Your task to perform on an android device: Open location settings Image 0: 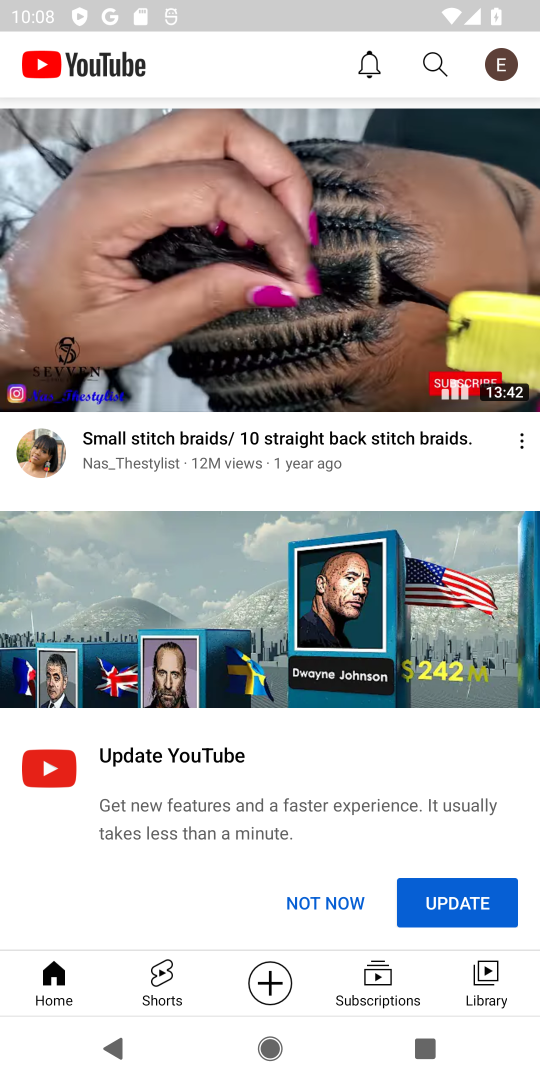
Step 0: press home button
Your task to perform on an android device: Open location settings Image 1: 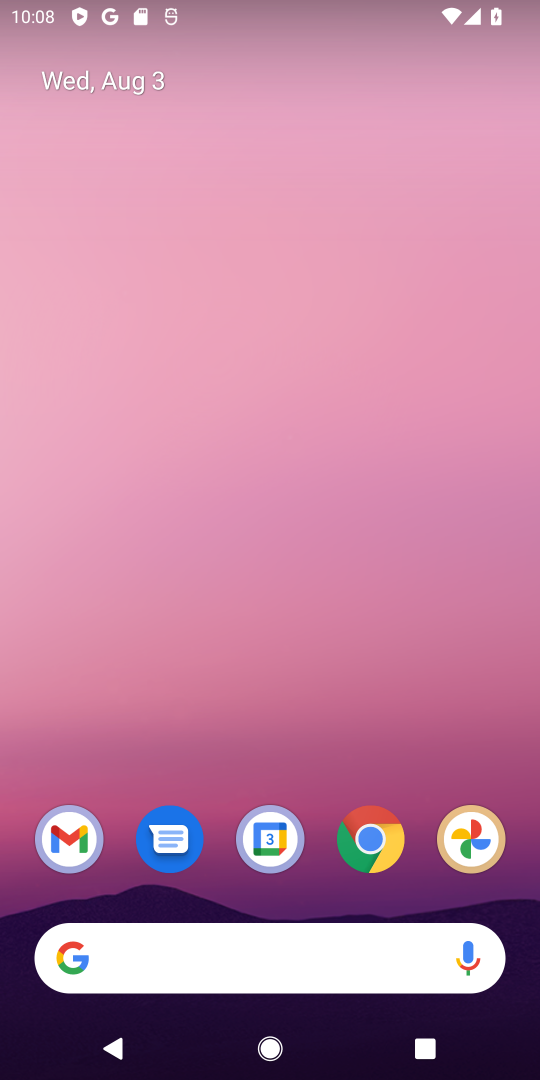
Step 1: drag from (200, 902) to (268, 32)
Your task to perform on an android device: Open location settings Image 2: 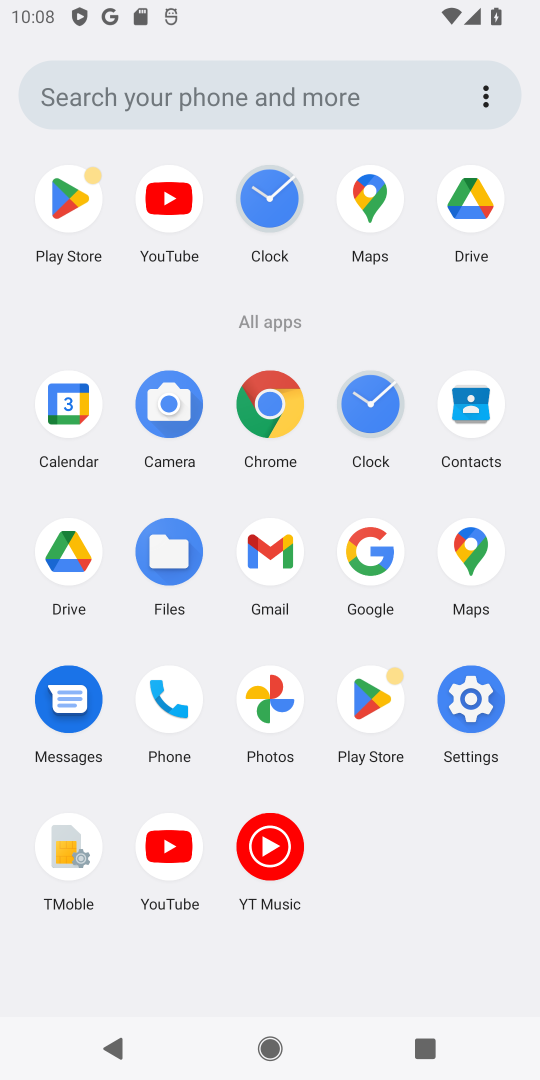
Step 2: click (489, 717)
Your task to perform on an android device: Open location settings Image 3: 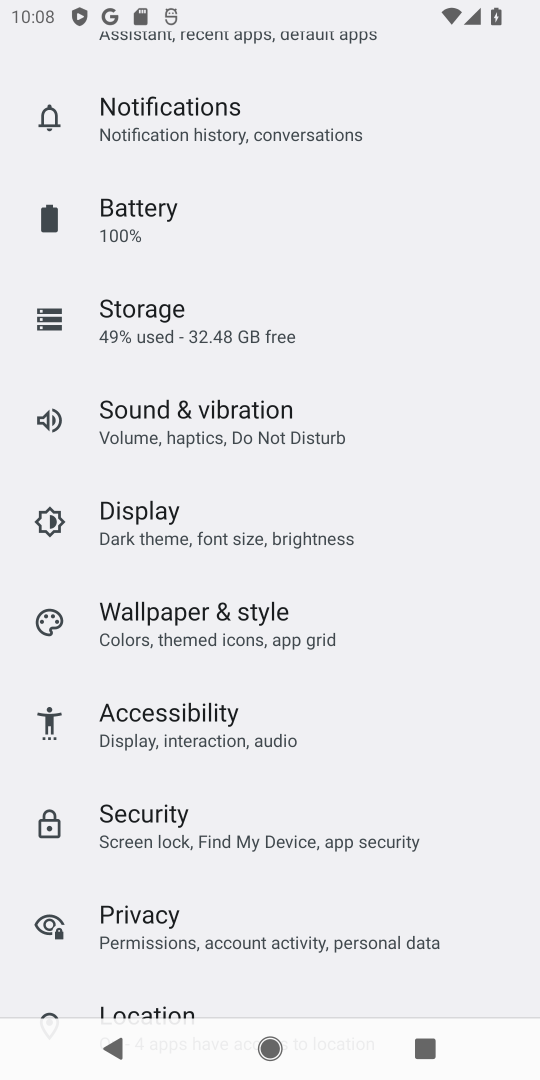
Step 3: drag from (188, 357) to (212, 270)
Your task to perform on an android device: Open location settings Image 4: 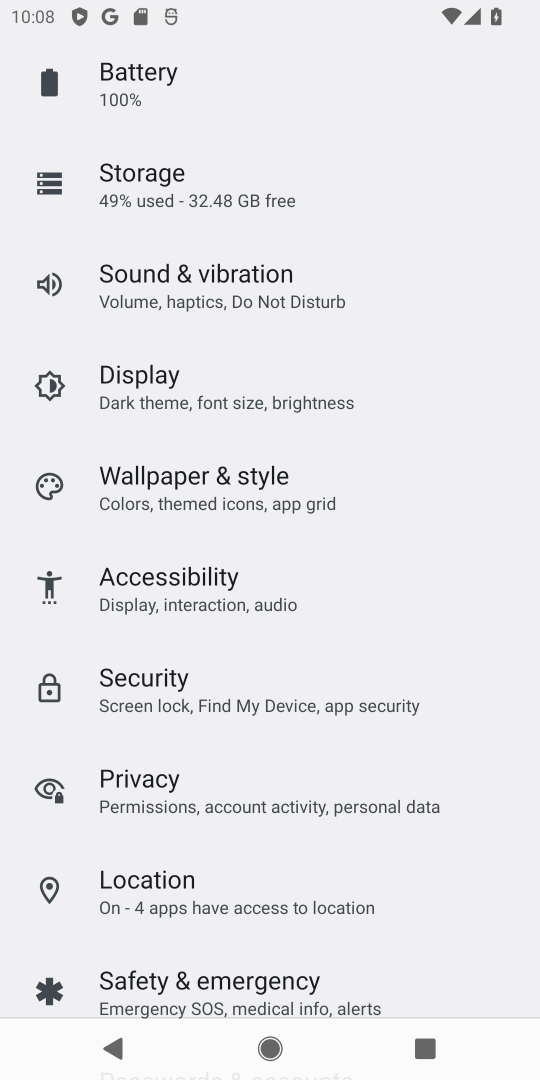
Step 4: click (158, 907)
Your task to perform on an android device: Open location settings Image 5: 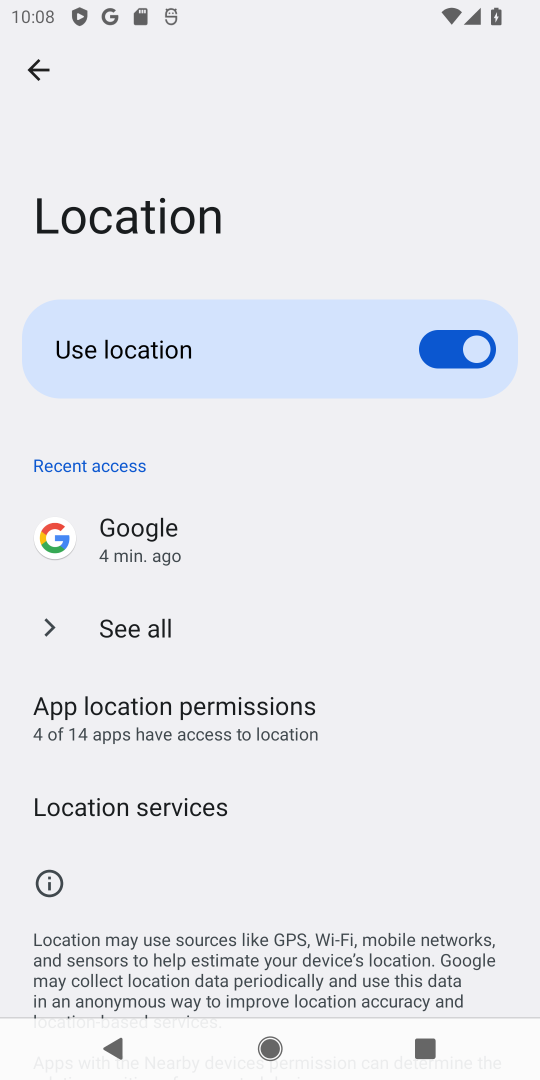
Step 5: task complete